Your task to perform on an android device: Open network settings Image 0: 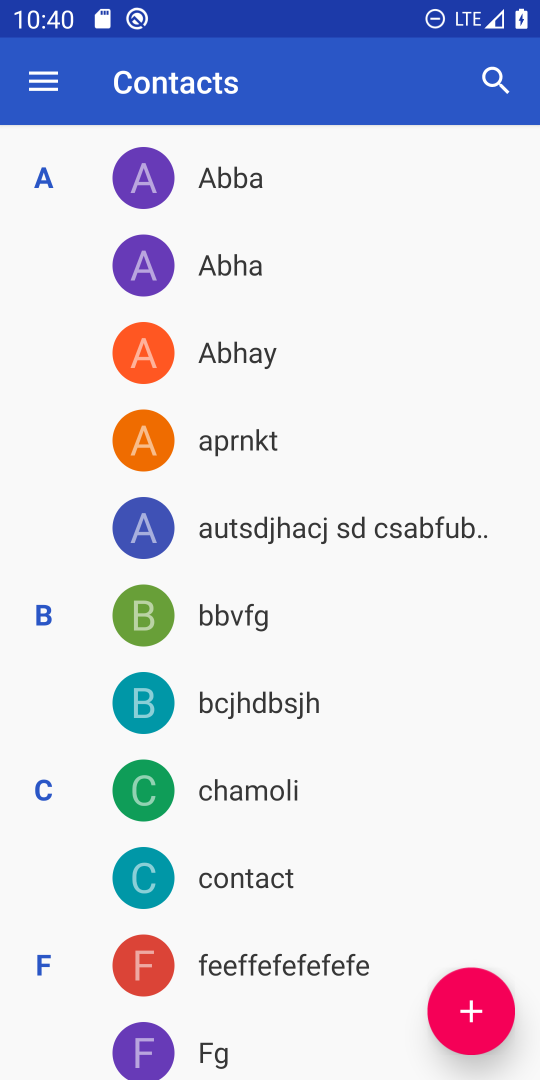
Step 0: press home button
Your task to perform on an android device: Open network settings Image 1: 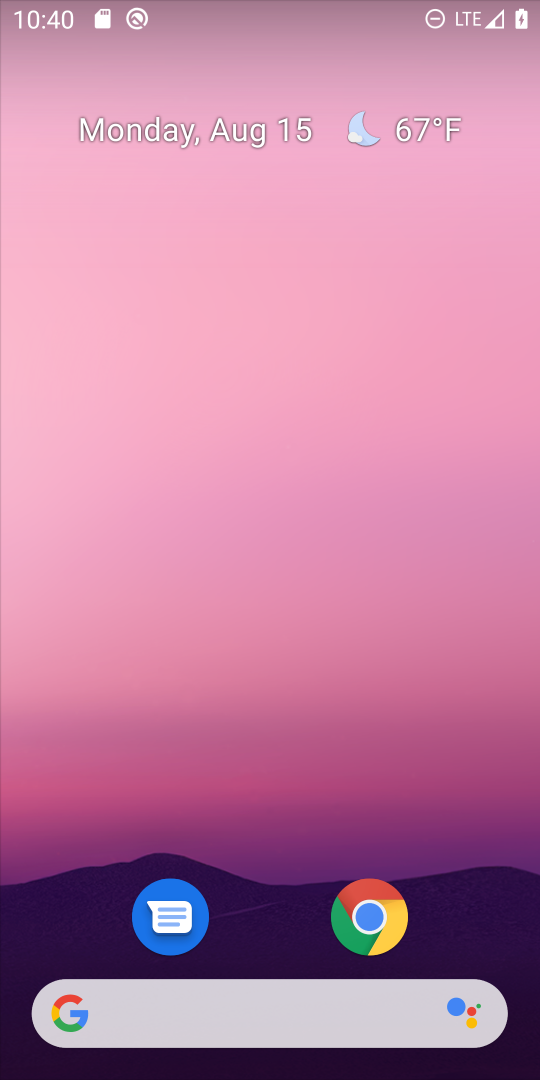
Step 1: drag from (230, 800) to (343, 0)
Your task to perform on an android device: Open network settings Image 2: 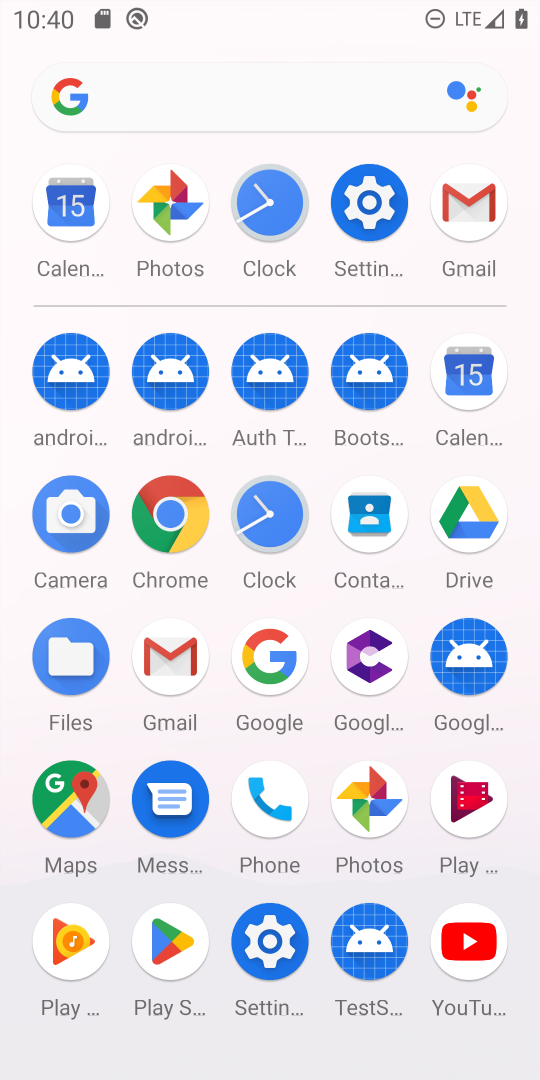
Step 2: click (367, 201)
Your task to perform on an android device: Open network settings Image 3: 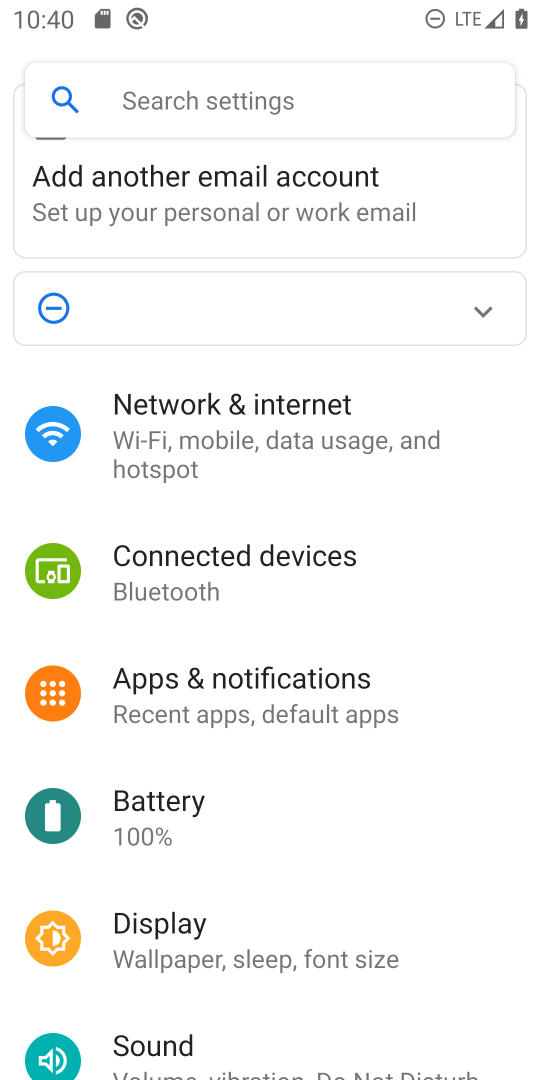
Step 3: click (278, 403)
Your task to perform on an android device: Open network settings Image 4: 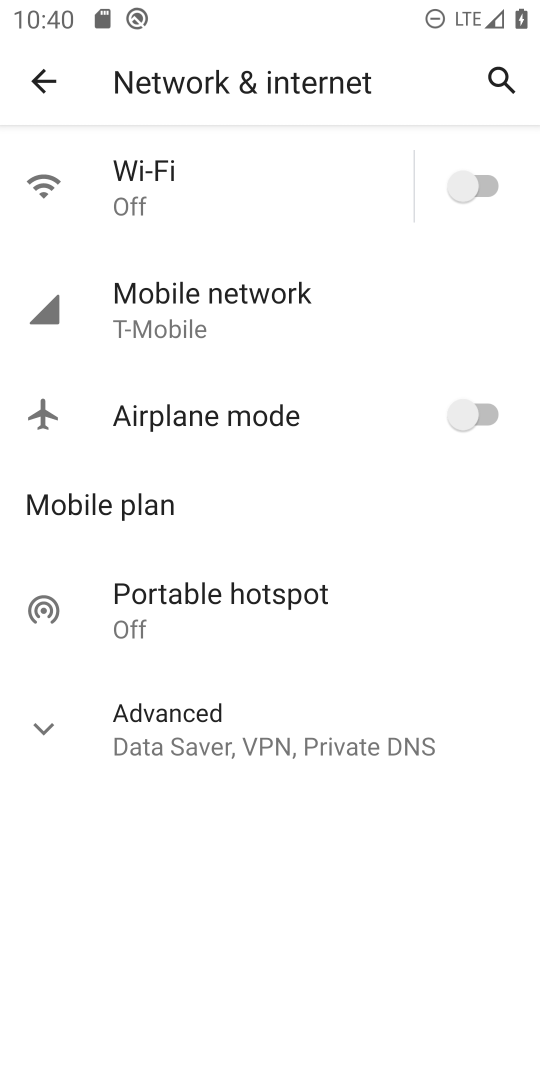
Step 4: click (44, 727)
Your task to perform on an android device: Open network settings Image 5: 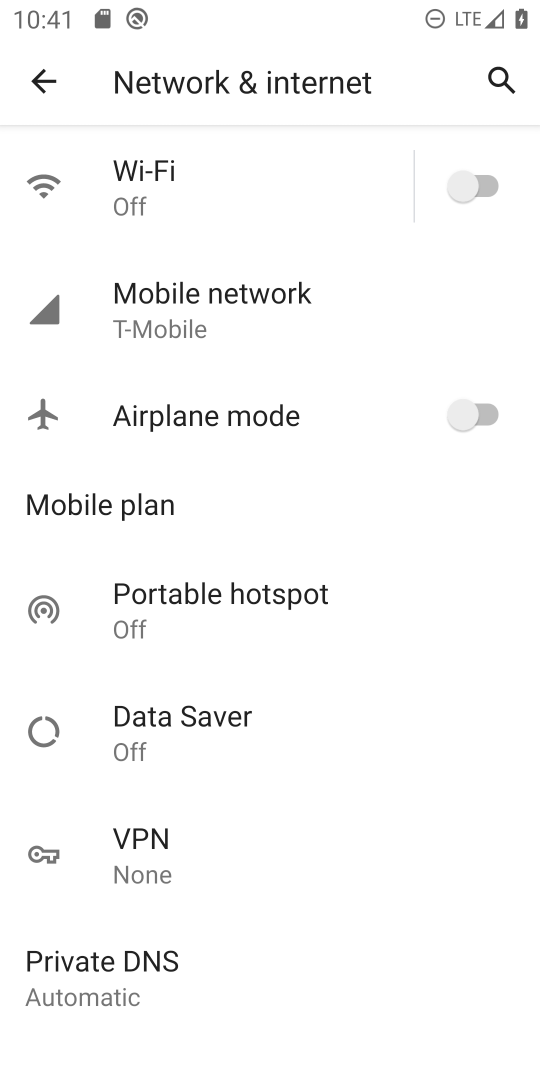
Step 5: task complete